Your task to perform on an android device: toggle data saver in the chrome app Image 0: 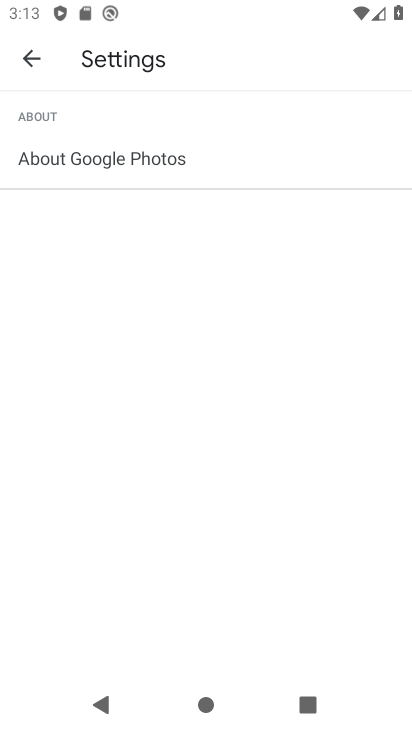
Step 0: press home button
Your task to perform on an android device: toggle data saver in the chrome app Image 1: 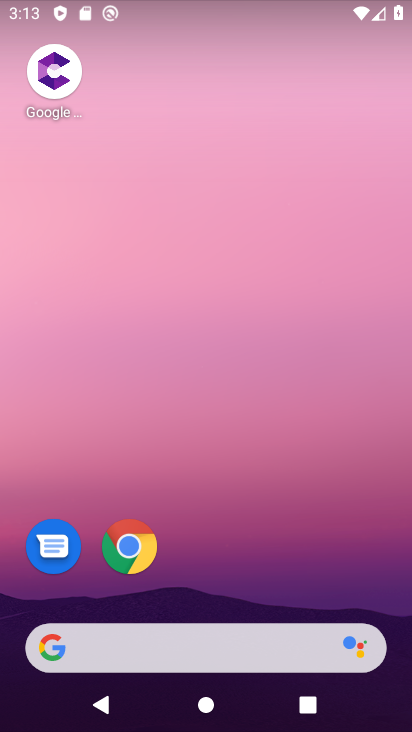
Step 1: drag from (213, 602) to (368, 112)
Your task to perform on an android device: toggle data saver in the chrome app Image 2: 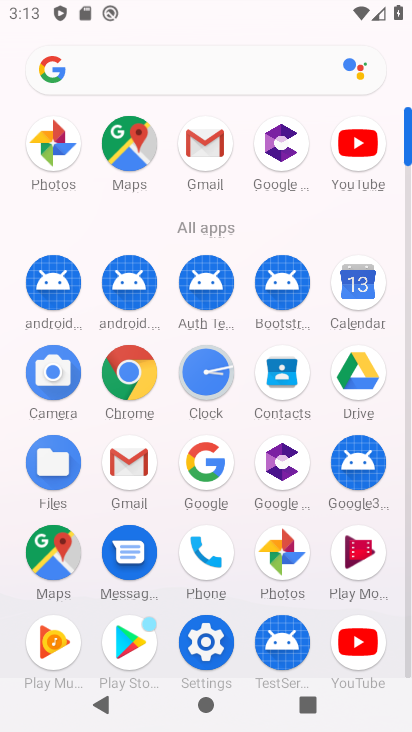
Step 2: click (119, 361)
Your task to perform on an android device: toggle data saver in the chrome app Image 3: 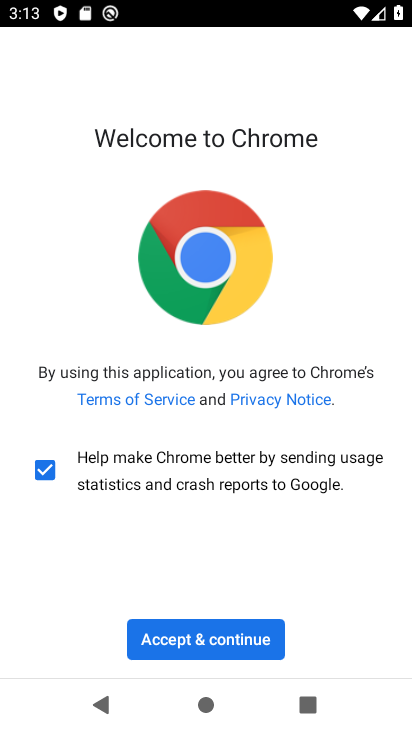
Step 3: click (243, 642)
Your task to perform on an android device: toggle data saver in the chrome app Image 4: 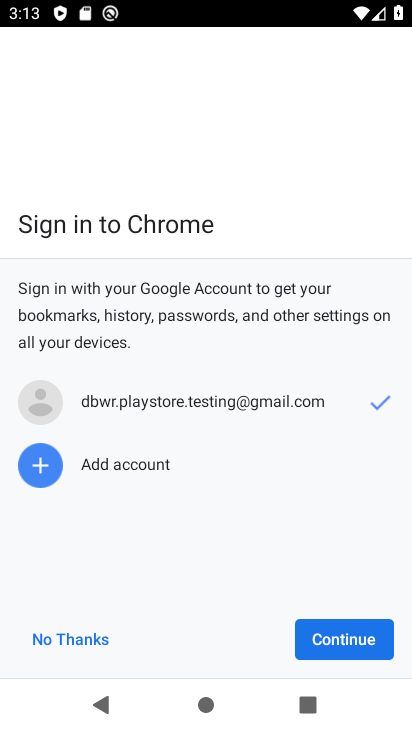
Step 4: click (377, 643)
Your task to perform on an android device: toggle data saver in the chrome app Image 5: 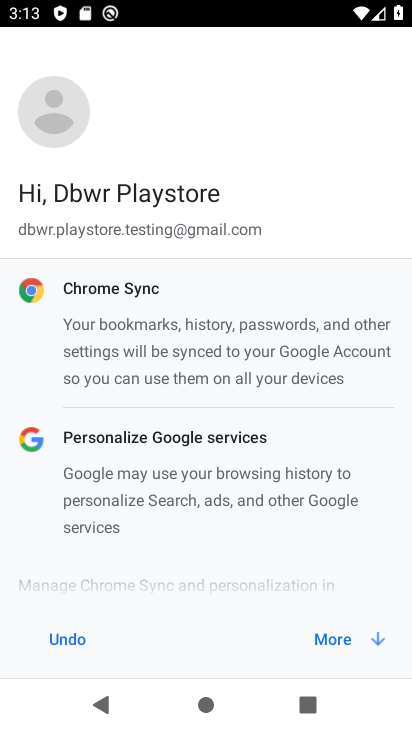
Step 5: click (355, 643)
Your task to perform on an android device: toggle data saver in the chrome app Image 6: 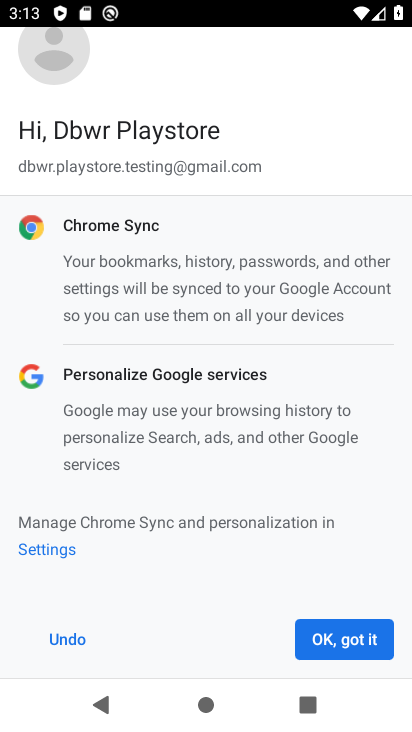
Step 6: click (355, 643)
Your task to perform on an android device: toggle data saver in the chrome app Image 7: 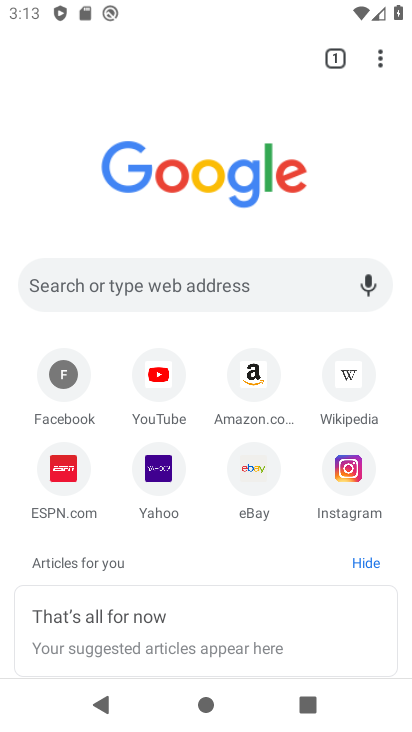
Step 7: drag from (390, 72) to (289, 500)
Your task to perform on an android device: toggle data saver in the chrome app Image 8: 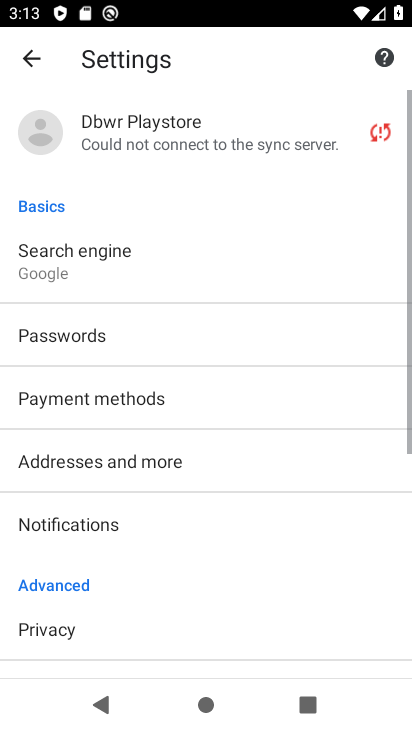
Step 8: drag from (222, 622) to (350, 286)
Your task to perform on an android device: toggle data saver in the chrome app Image 9: 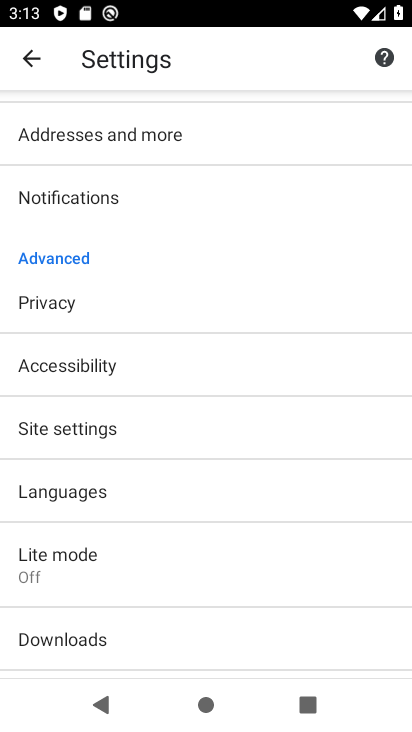
Step 9: drag from (201, 508) to (284, 261)
Your task to perform on an android device: toggle data saver in the chrome app Image 10: 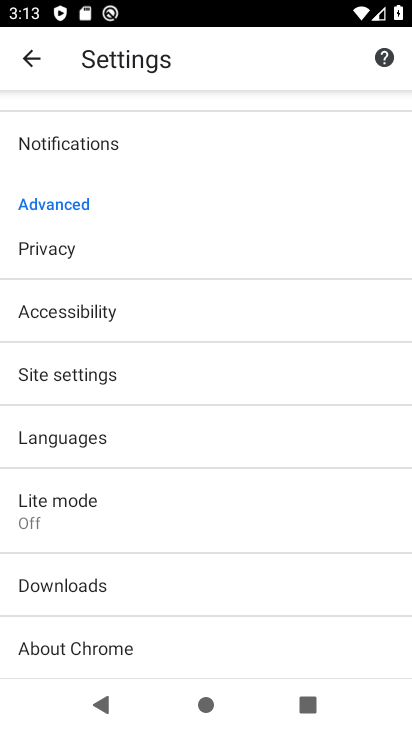
Step 10: click (118, 500)
Your task to perform on an android device: toggle data saver in the chrome app Image 11: 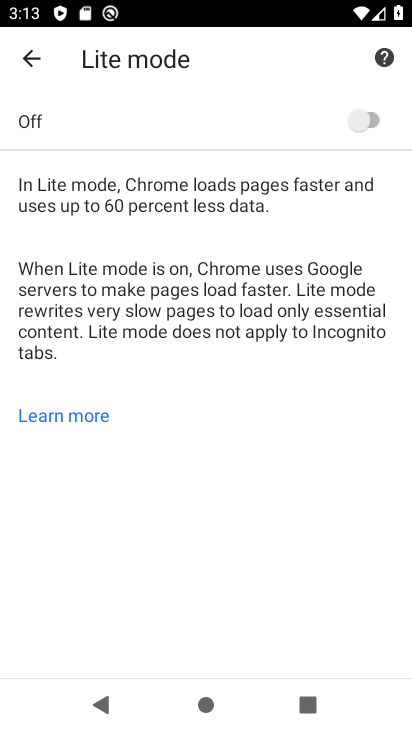
Step 11: click (380, 115)
Your task to perform on an android device: toggle data saver in the chrome app Image 12: 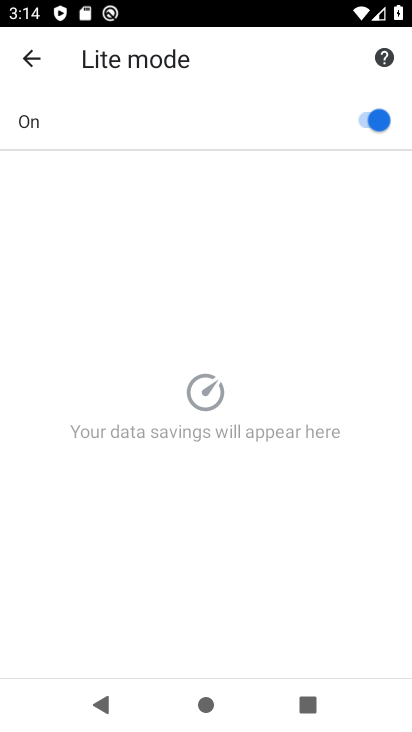
Step 12: task complete